Your task to perform on an android device: Is it going to rain tomorrow? Image 0: 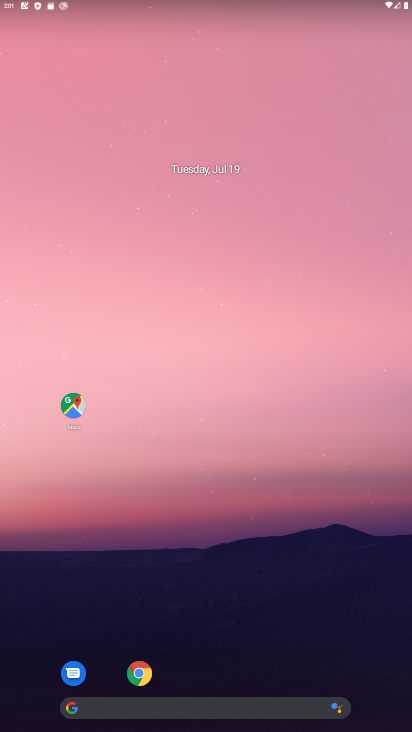
Step 0: drag from (194, 713) to (341, 323)
Your task to perform on an android device: Is it going to rain tomorrow? Image 1: 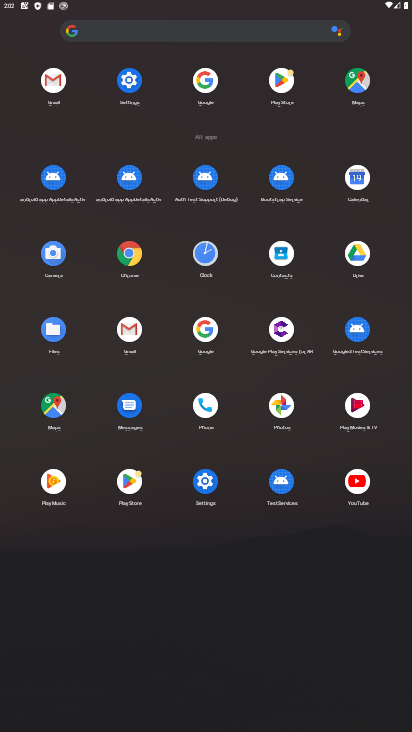
Step 1: click (206, 330)
Your task to perform on an android device: Is it going to rain tomorrow? Image 2: 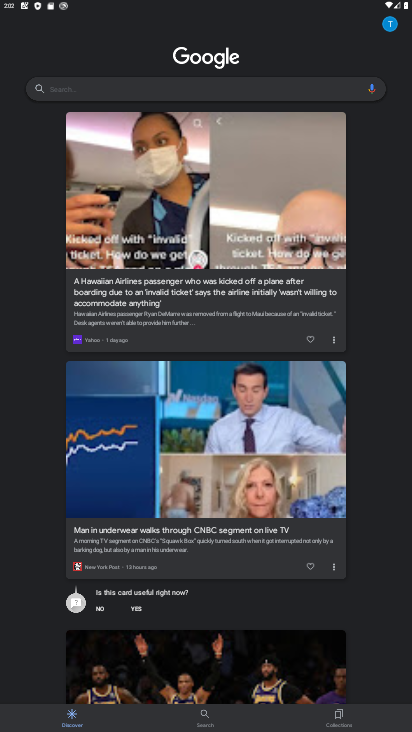
Step 2: click (159, 93)
Your task to perform on an android device: Is it going to rain tomorrow? Image 3: 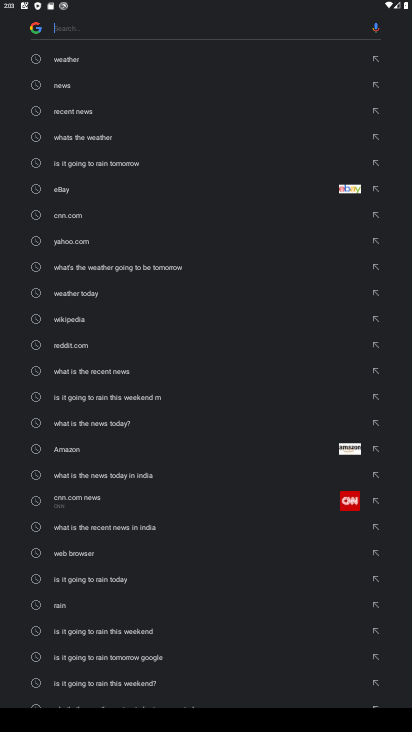
Step 3: type "Is it going to rain tomorrow?"
Your task to perform on an android device: Is it going to rain tomorrow? Image 4: 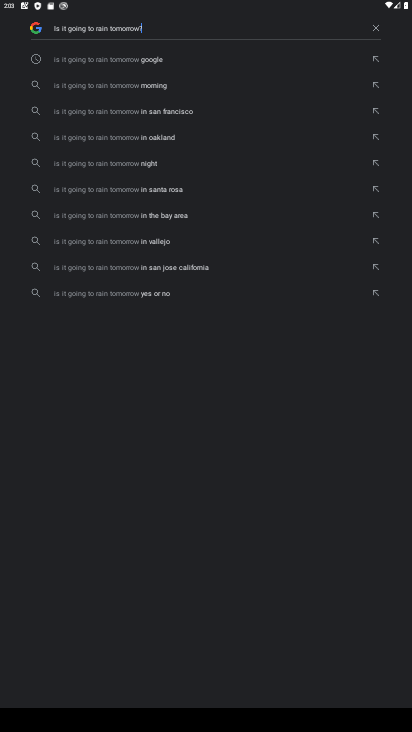
Step 4: click (122, 65)
Your task to perform on an android device: Is it going to rain tomorrow? Image 5: 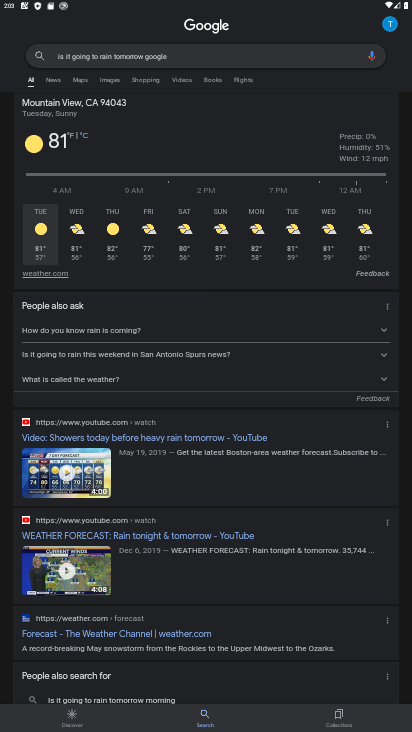
Step 5: click (86, 233)
Your task to perform on an android device: Is it going to rain tomorrow? Image 6: 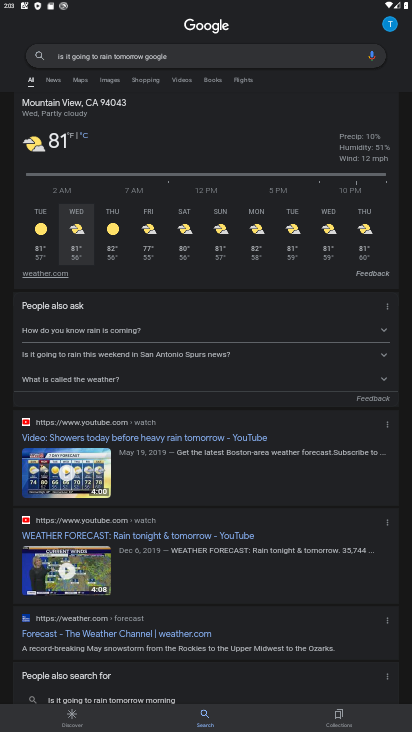
Step 6: task complete